Your task to perform on an android device: open chrome privacy settings Image 0: 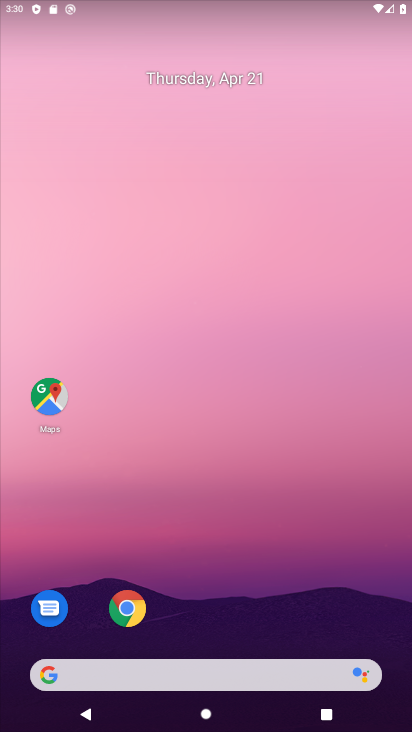
Step 0: click (125, 612)
Your task to perform on an android device: open chrome privacy settings Image 1: 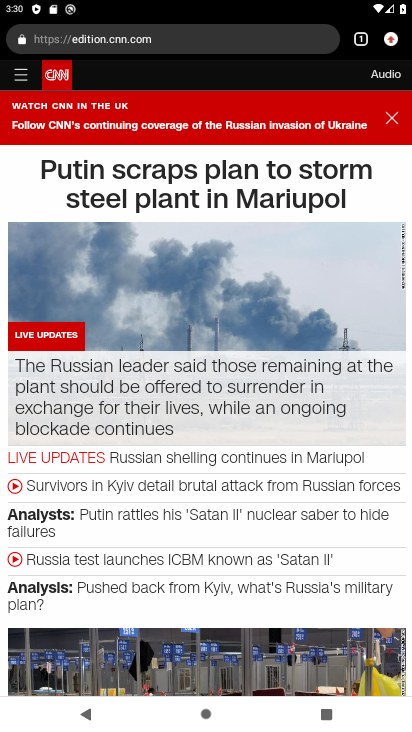
Step 1: drag from (389, 41) to (290, 481)
Your task to perform on an android device: open chrome privacy settings Image 2: 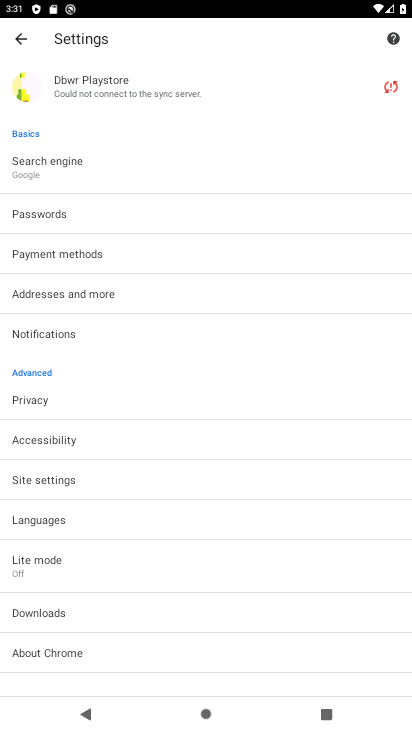
Step 2: click (48, 409)
Your task to perform on an android device: open chrome privacy settings Image 3: 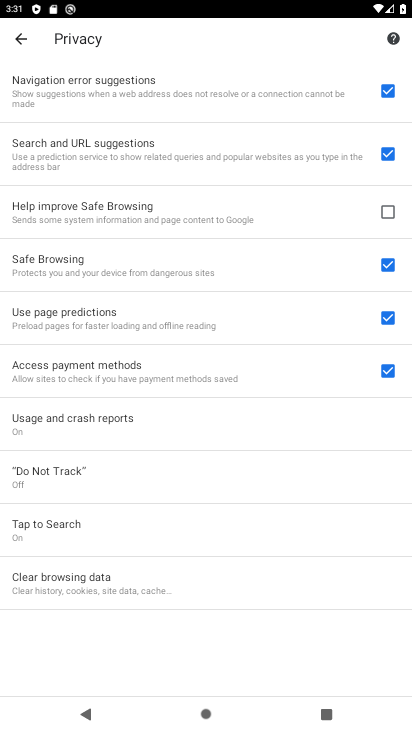
Step 3: task complete